Your task to perform on an android device: change the clock display to digital Image 0: 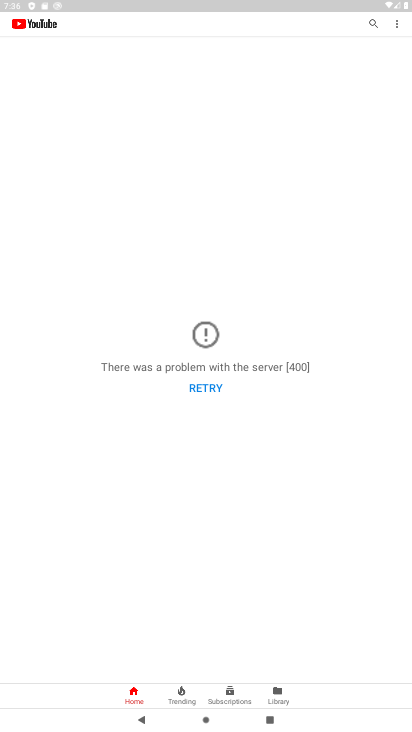
Step 0: press home button
Your task to perform on an android device: change the clock display to digital Image 1: 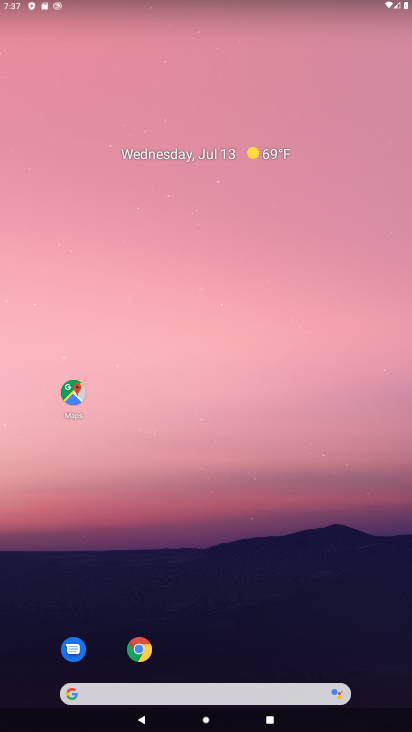
Step 1: drag from (193, 677) to (264, 171)
Your task to perform on an android device: change the clock display to digital Image 2: 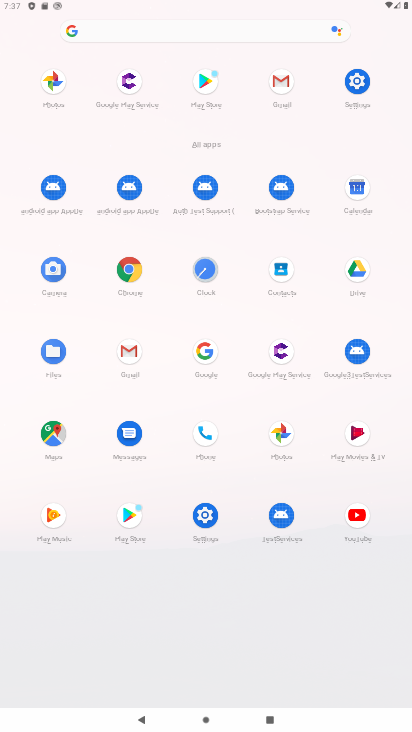
Step 2: click (193, 263)
Your task to perform on an android device: change the clock display to digital Image 3: 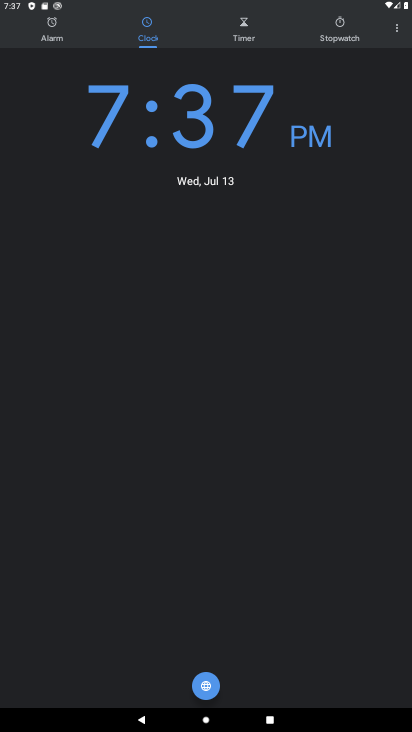
Step 3: click (397, 36)
Your task to perform on an android device: change the clock display to digital Image 4: 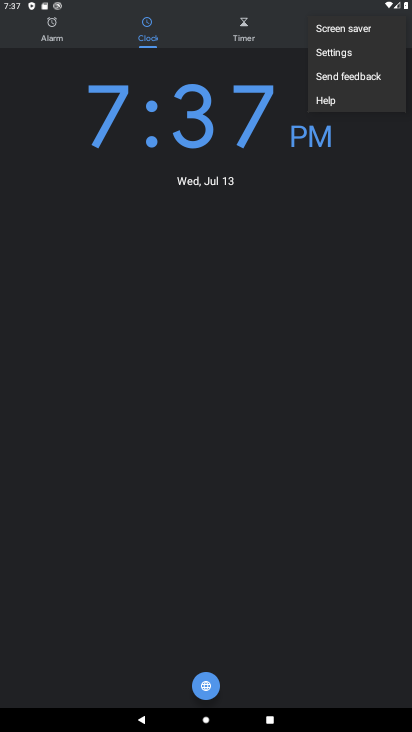
Step 4: click (346, 55)
Your task to perform on an android device: change the clock display to digital Image 5: 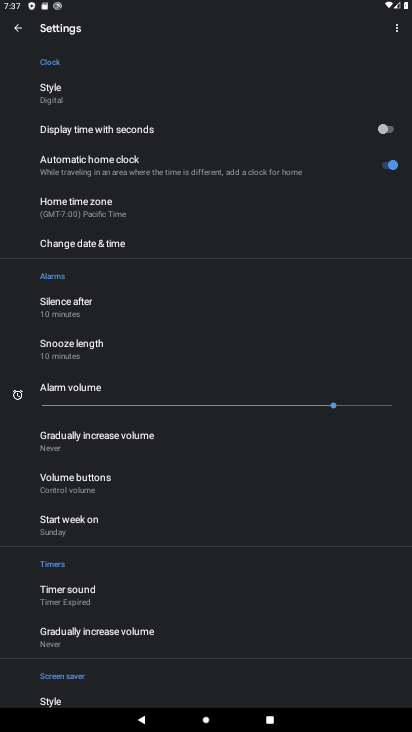
Step 5: click (67, 100)
Your task to perform on an android device: change the clock display to digital Image 6: 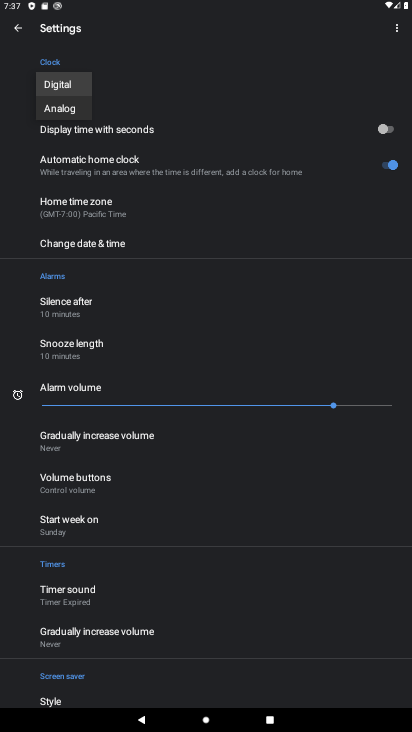
Step 6: click (61, 82)
Your task to perform on an android device: change the clock display to digital Image 7: 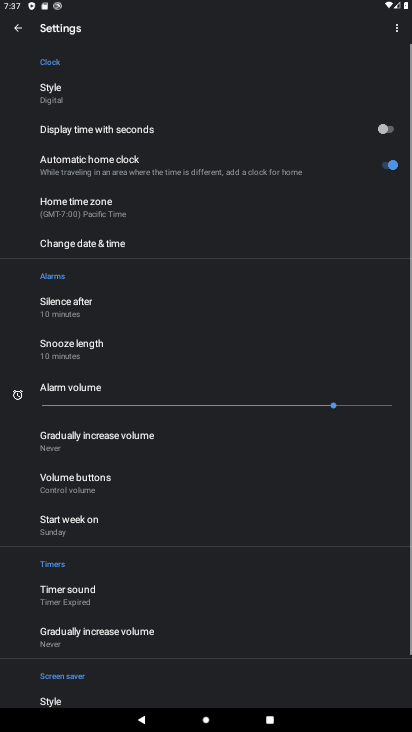
Step 7: task complete